Your task to perform on an android device: delete a single message in the gmail app Image 0: 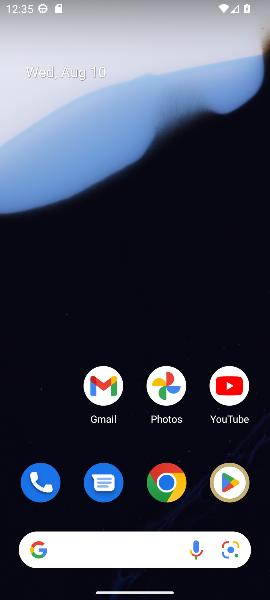
Step 0: click (103, 384)
Your task to perform on an android device: delete a single message in the gmail app Image 1: 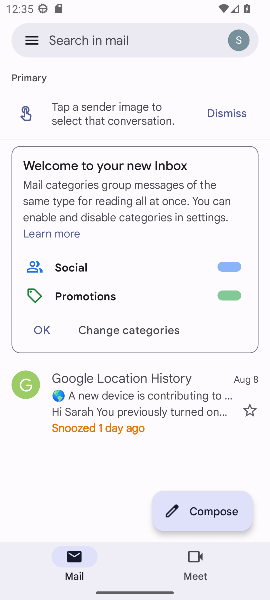
Step 1: task complete